Your task to perform on an android device: Go to display settings Image 0: 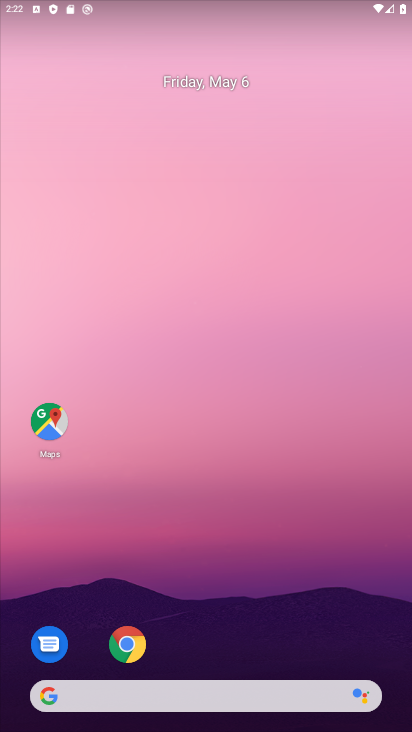
Step 0: drag from (245, 721) to (270, 159)
Your task to perform on an android device: Go to display settings Image 1: 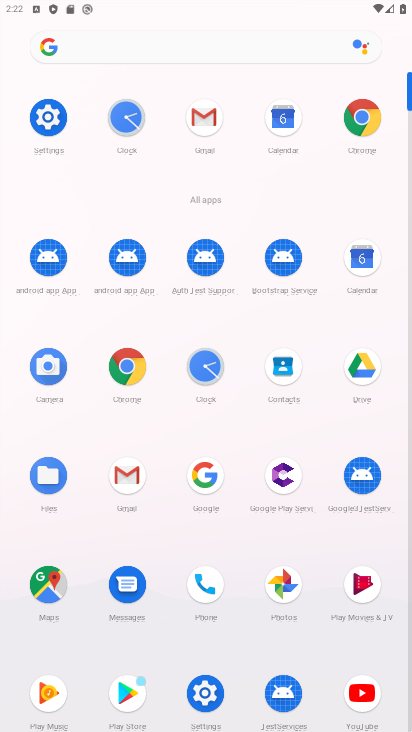
Step 1: click (37, 120)
Your task to perform on an android device: Go to display settings Image 2: 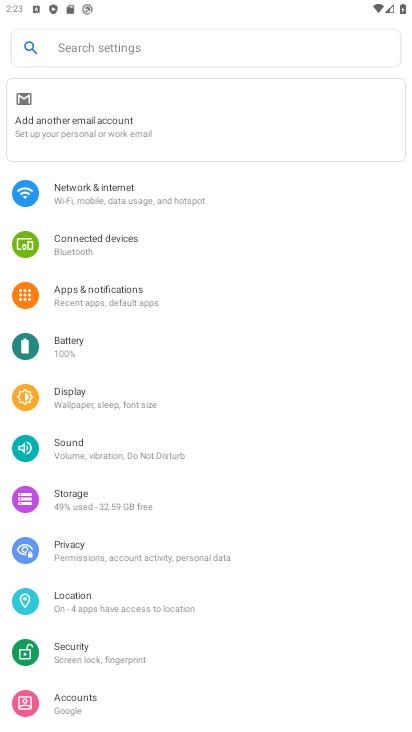
Step 2: click (108, 394)
Your task to perform on an android device: Go to display settings Image 3: 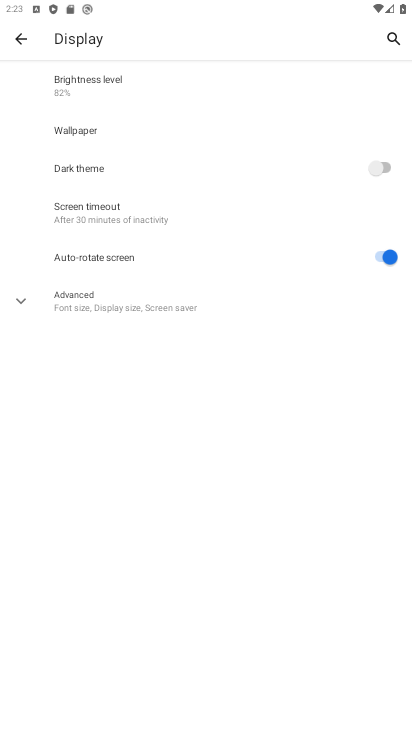
Step 3: task complete